Your task to perform on an android device: turn off notifications in google photos Image 0: 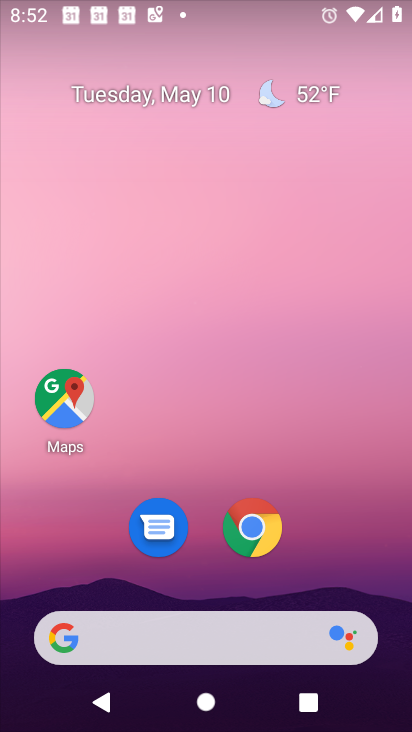
Step 0: drag from (315, 567) to (257, 218)
Your task to perform on an android device: turn off notifications in google photos Image 1: 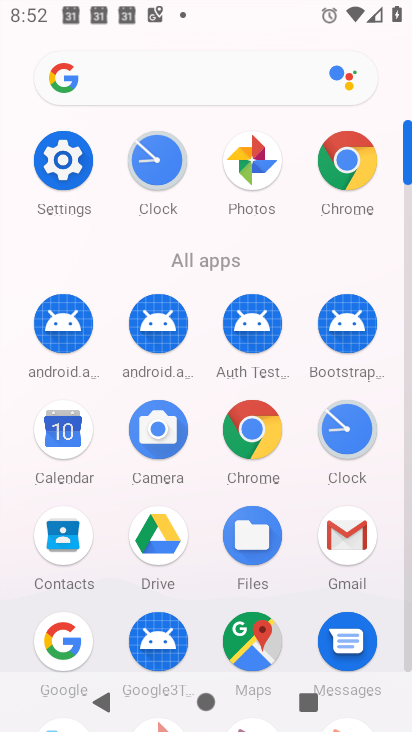
Step 1: click (258, 162)
Your task to perform on an android device: turn off notifications in google photos Image 2: 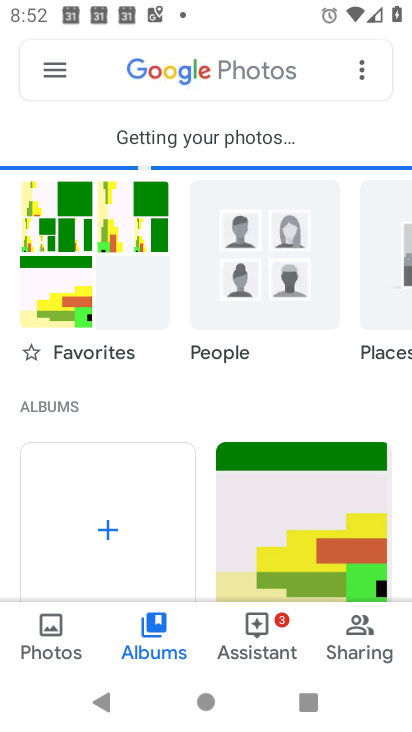
Step 2: click (51, 68)
Your task to perform on an android device: turn off notifications in google photos Image 3: 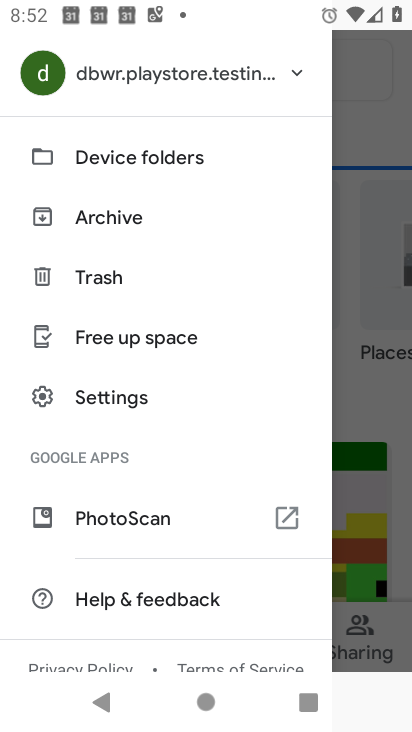
Step 3: click (95, 399)
Your task to perform on an android device: turn off notifications in google photos Image 4: 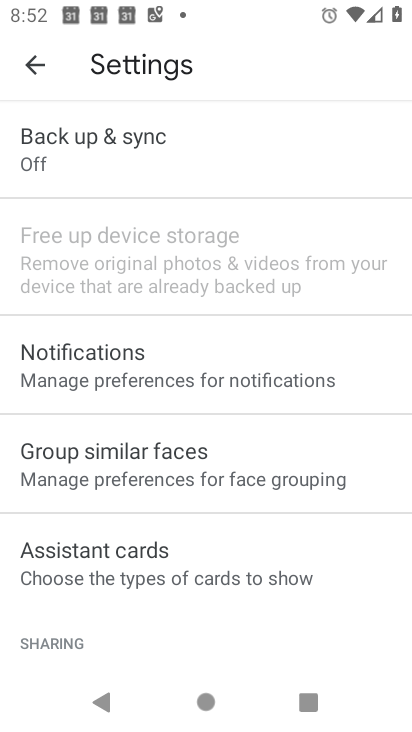
Step 4: click (115, 374)
Your task to perform on an android device: turn off notifications in google photos Image 5: 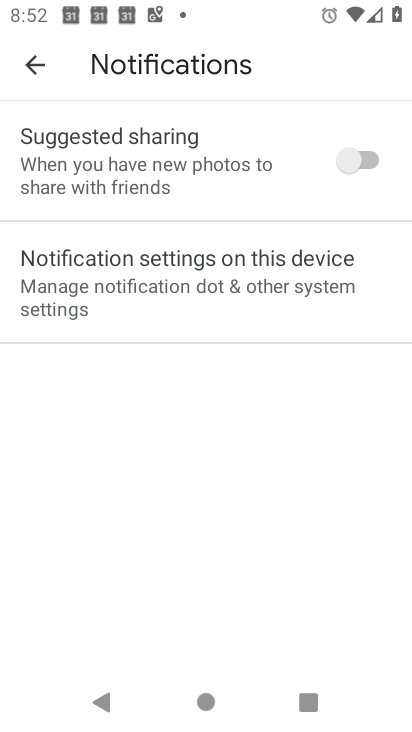
Step 5: click (122, 311)
Your task to perform on an android device: turn off notifications in google photos Image 6: 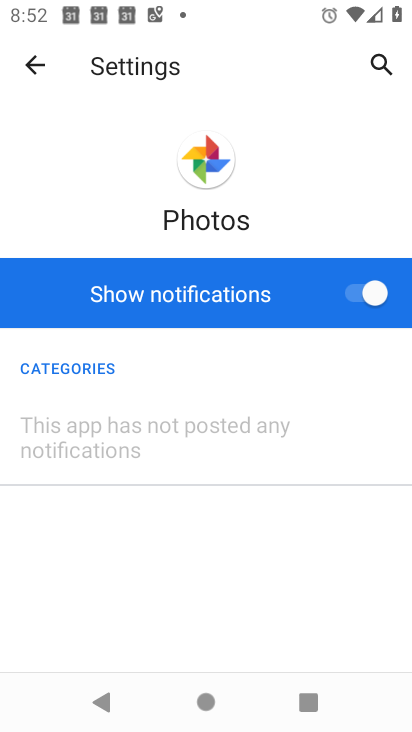
Step 6: click (382, 295)
Your task to perform on an android device: turn off notifications in google photos Image 7: 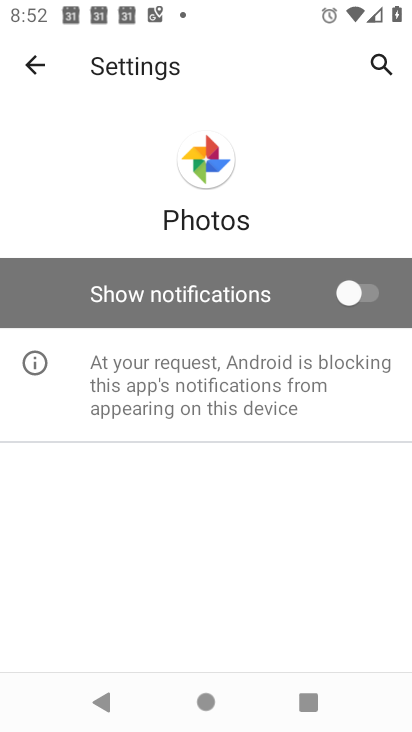
Step 7: task complete